Your task to perform on an android device: turn pop-ups on in chrome Image 0: 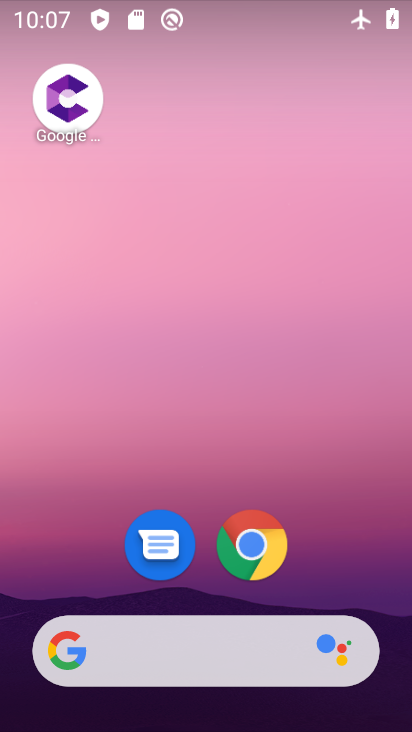
Step 0: click (241, 547)
Your task to perform on an android device: turn pop-ups on in chrome Image 1: 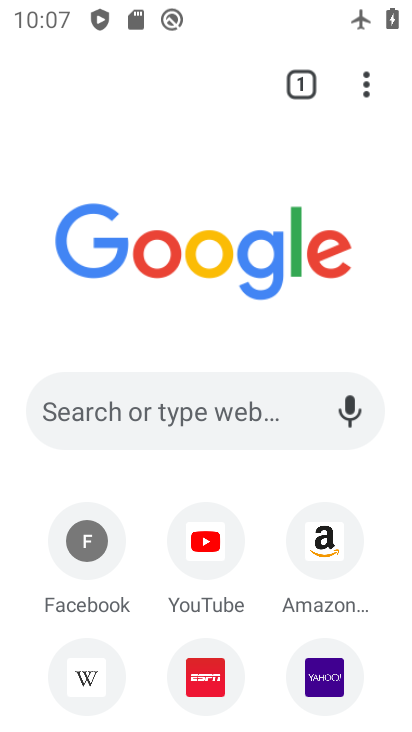
Step 1: click (374, 84)
Your task to perform on an android device: turn pop-ups on in chrome Image 2: 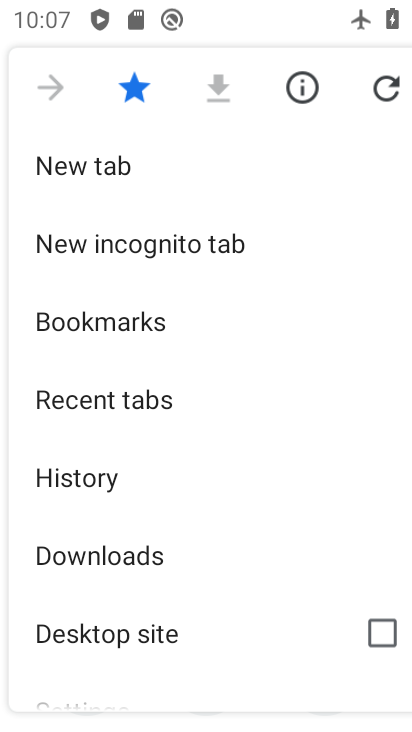
Step 2: drag from (116, 633) to (140, 406)
Your task to perform on an android device: turn pop-ups on in chrome Image 3: 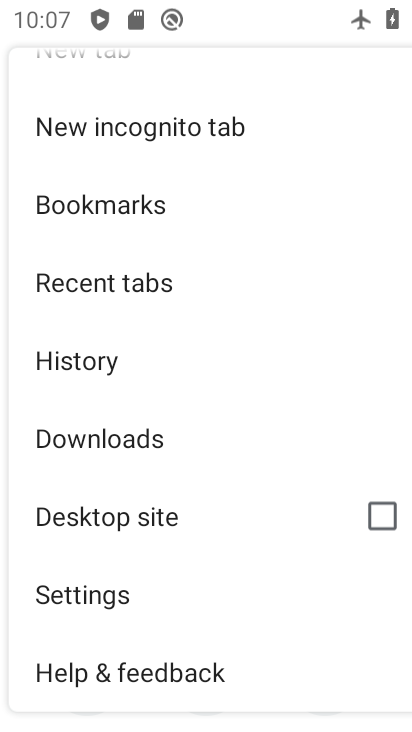
Step 3: click (88, 601)
Your task to perform on an android device: turn pop-ups on in chrome Image 4: 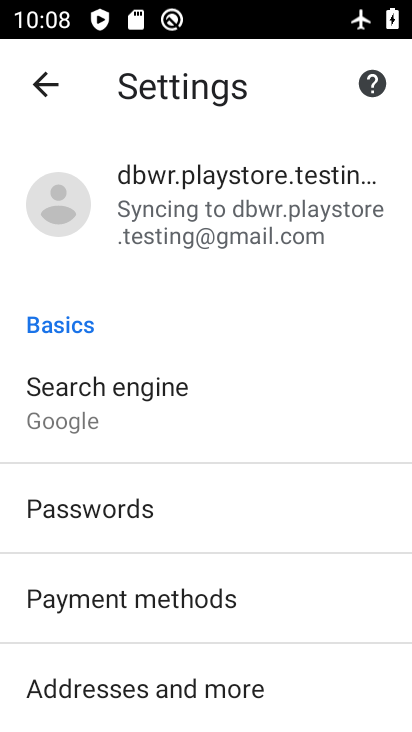
Step 4: drag from (216, 542) to (240, 310)
Your task to perform on an android device: turn pop-ups on in chrome Image 5: 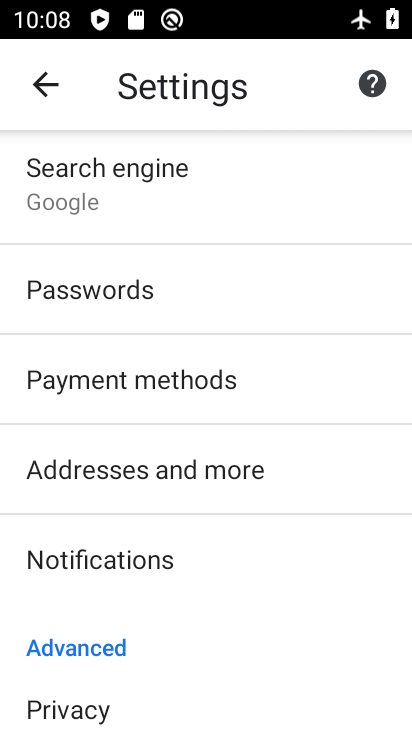
Step 5: drag from (155, 667) to (218, 345)
Your task to perform on an android device: turn pop-ups on in chrome Image 6: 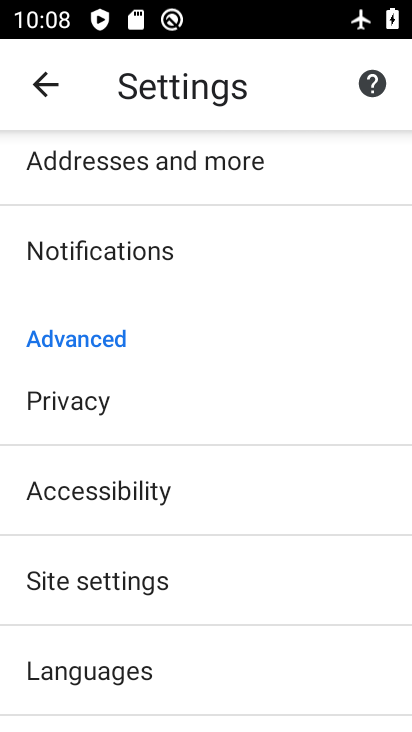
Step 6: click (105, 598)
Your task to perform on an android device: turn pop-ups on in chrome Image 7: 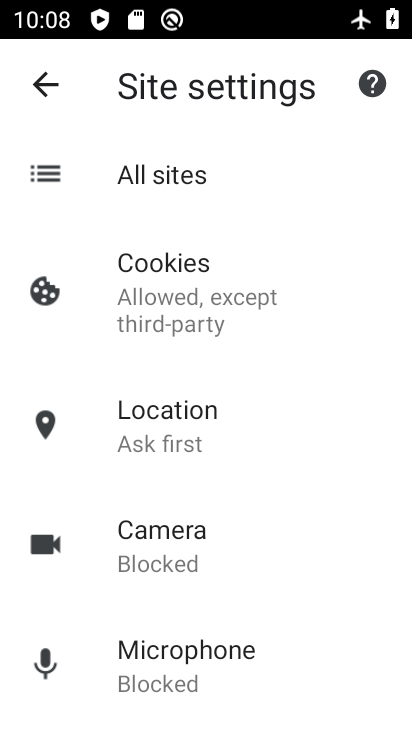
Step 7: drag from (181, 590) to (200, 384)
Your task to perform on an android device: turn pop-ups on in chrome Image 8: 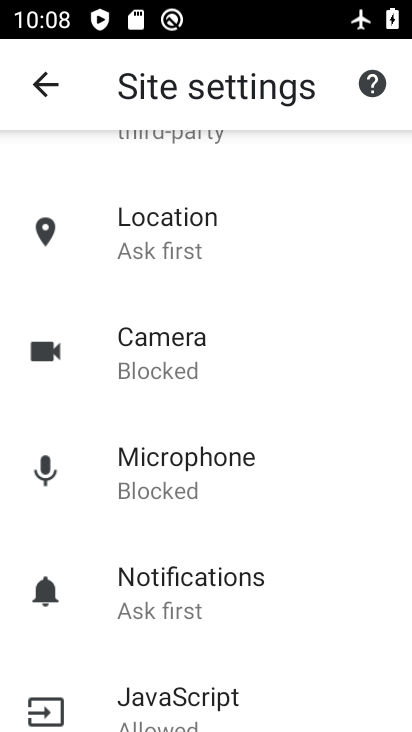
Step 8: drag from (176, 688) to (211, 393)
Your task to perform on an android device: turn pop-ups on in chrome Image 9: 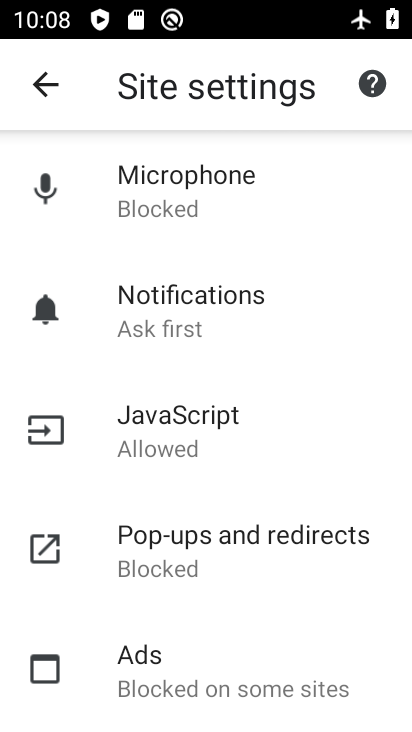
Step 9: click (166, 566)
Your task to perform on an android device: turn pop-ups on in chrome Image 10: 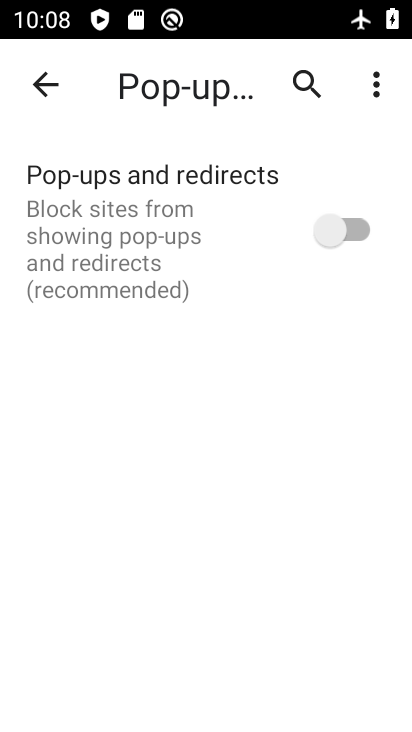
Step 10: click (373, 222)
Your task to perform on an android device: turn pop-ups on in chrome Image 11: 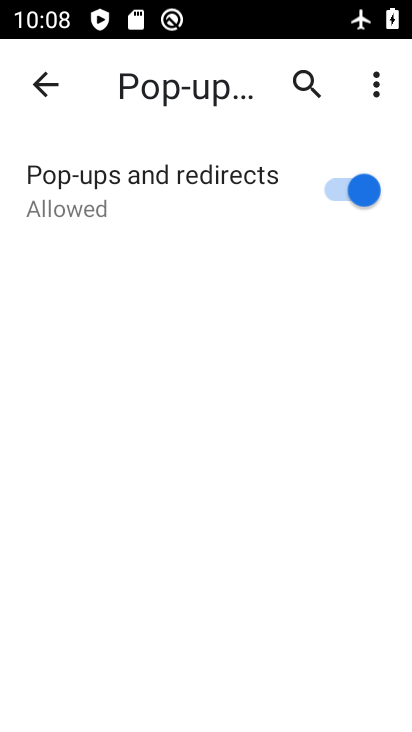
Step 11: task complete